Your task to perform on an android device: Go to network settings Image 0: 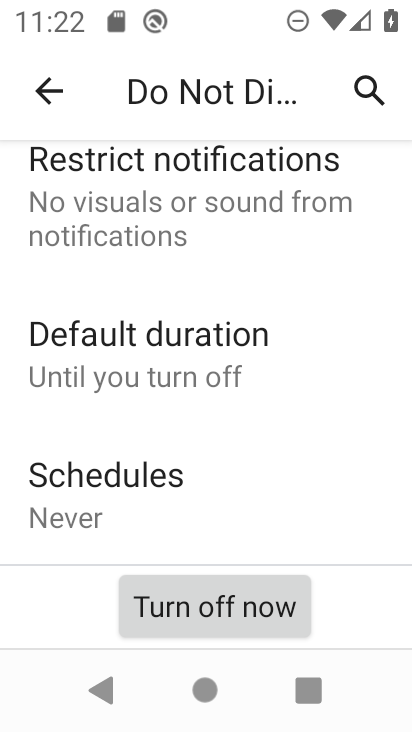
Step 0: press home button
Your task to perform on an android device: Go to network settings Image 1: 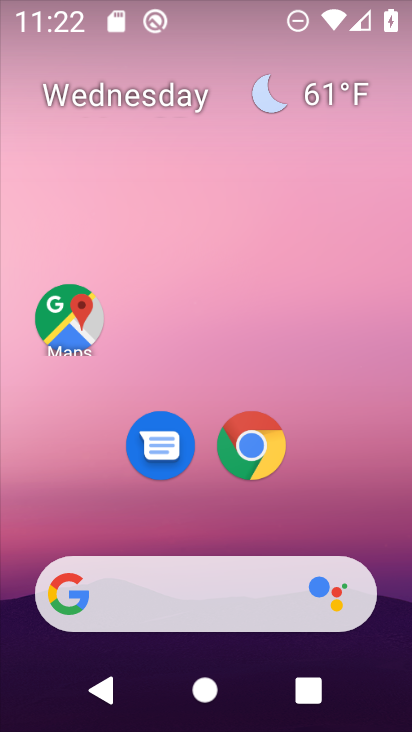
Step 1: drag from (360, 520) to (362, 96)
Your task to perform on an android device: Go to network settings Image 2: 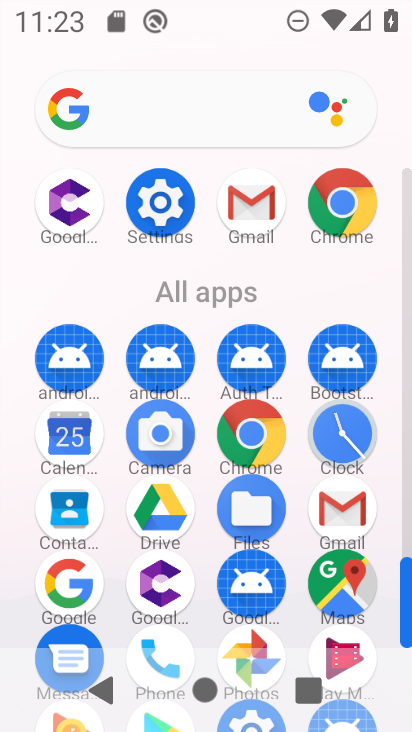
Step 2: click (170, 217)
Your task to perform on an android device: Go to network settings Image 3: 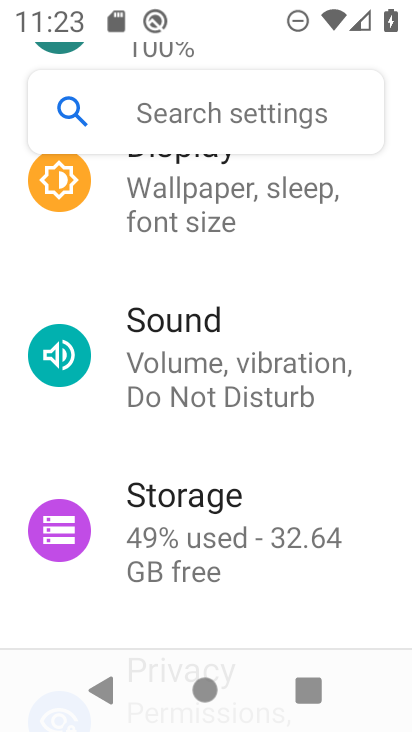
Step 3: drag from (201, 192) to (180, 482)
Your task to perform on an android device: Go to network settings Image 4: 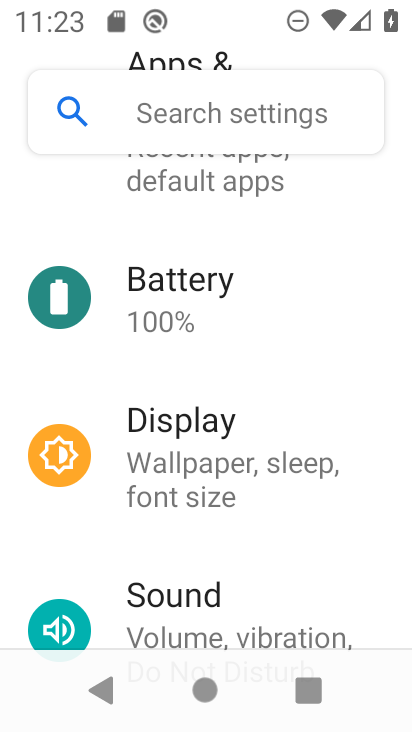
Step 4: drag from (225, 228) to (200, 586)
Your task to perform on an android device: Go to network settings Image 5: 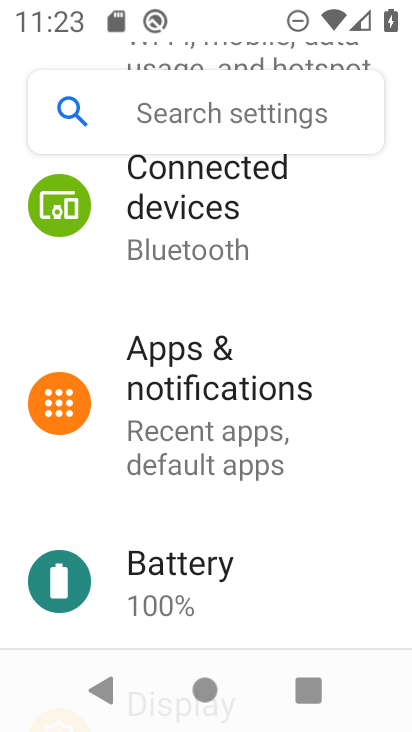
Step 5: drag from (240, 268) to (242, 655)
Your task to perform on an android device: Go to network settings Image 6: 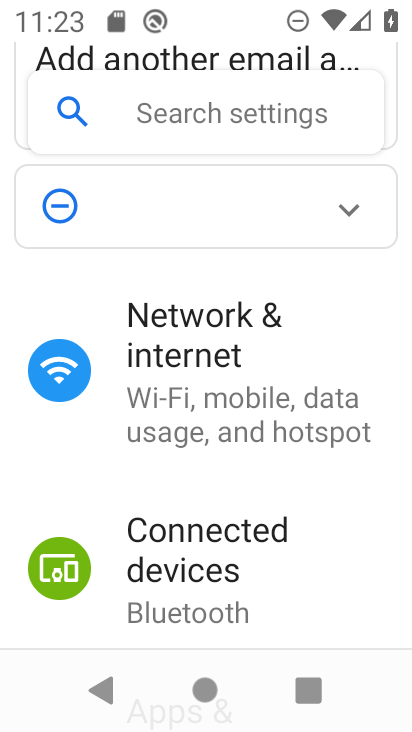
Step 6: click (320, 408)
Your task to perform on an android device: Go to network settings Image 7: 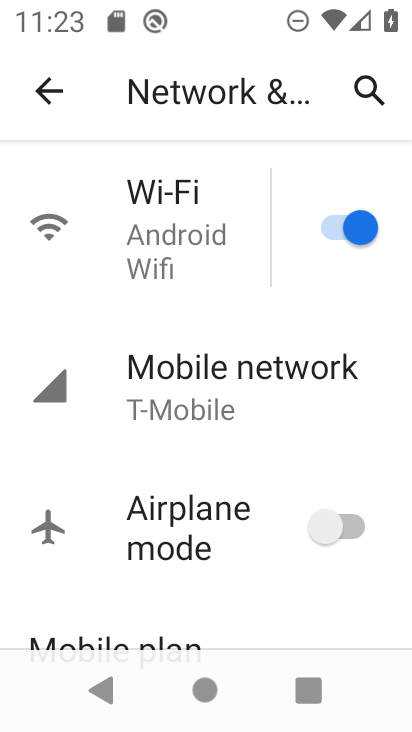
Step 7: task complete